Your task to perform on an android device: Go to notification settings Image 0: 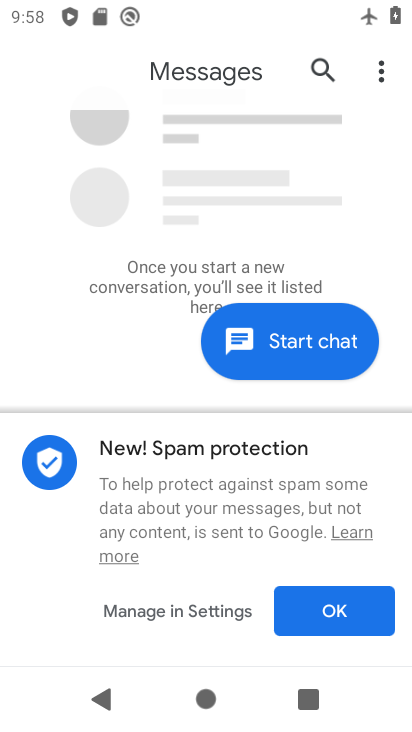
Step 0: press home button
Your task to perform on an android device: Go to notification settings Image 1: 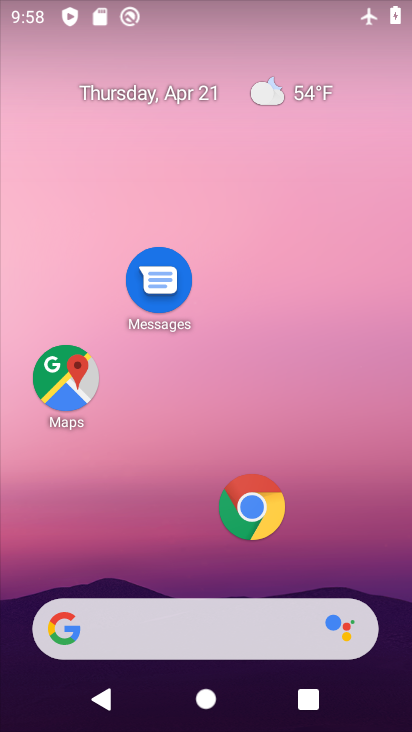
Step 1: drag from (183, 540) to (181, 97)
Your task to perform on an android device: Go to notification settings Image 2: 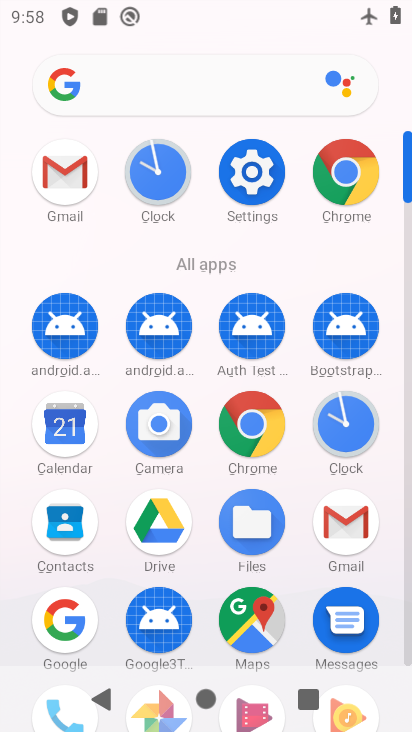
Step 2: click (250, 179)
Your task to perform on an android device: Go to notification settings Image 3: 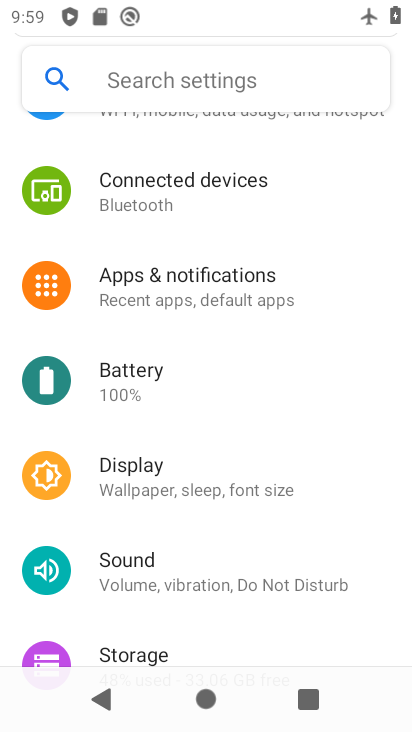
Step 3: click (195, 288)
Your task to perform on an android device: Go to notification settings Image 4: 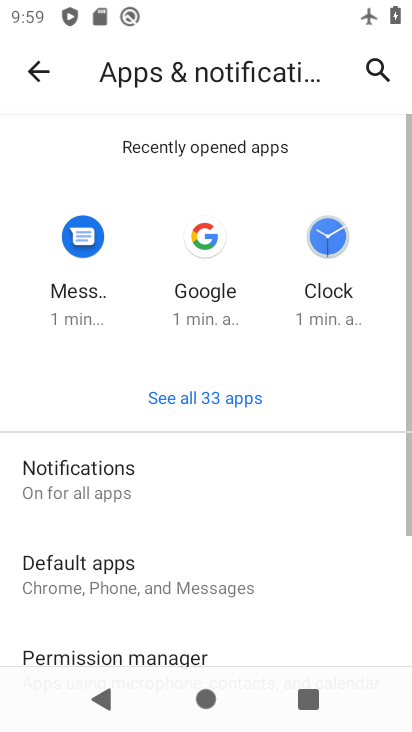
Step 4: click (122, 475)
Your task to perform on an android device: Go to notification settings Image 5: 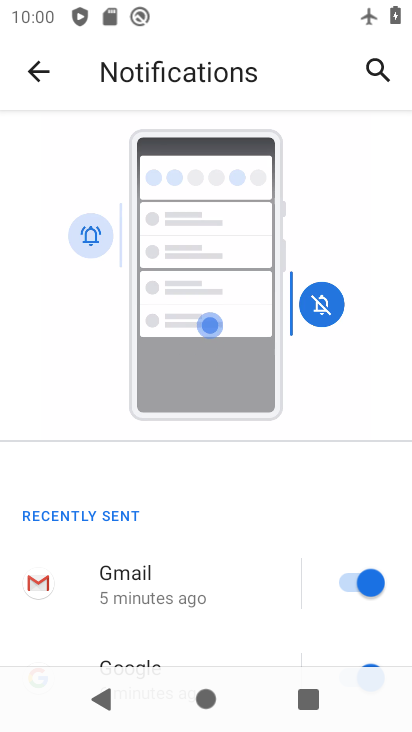
Step 5: task complete